Your task to perform on an android device: Search for seafood restaurants on Google Maps Image 0: 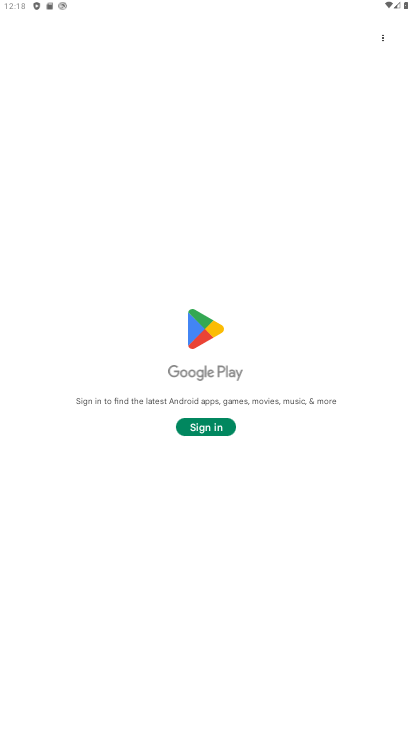
Step 0: press back button
Your task to perform on an android device: Search for seafood restaurants on Google Maps Image 1: 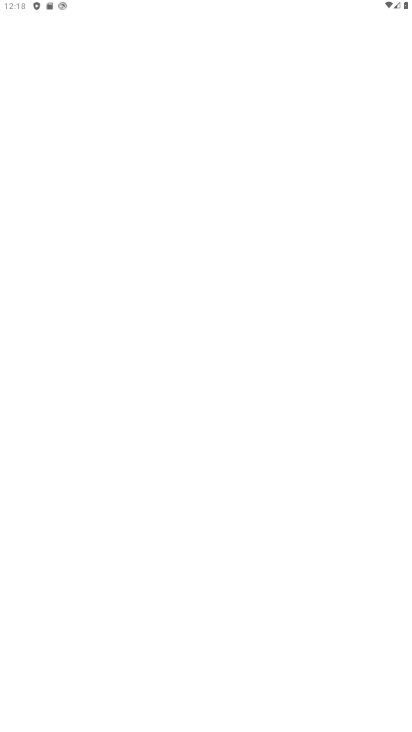
Step 1: press back button
Your task to perform on an android device: Search for seafood restaurants on Google Maps Image 2: 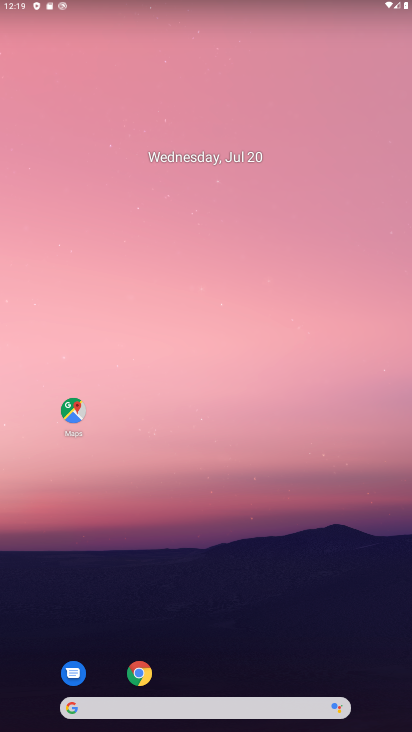
Step 2: drag from (235, 672) to (203, 192)
Your task to perform on an android device: Search for seafood restaurants on Google Maps Image 3: 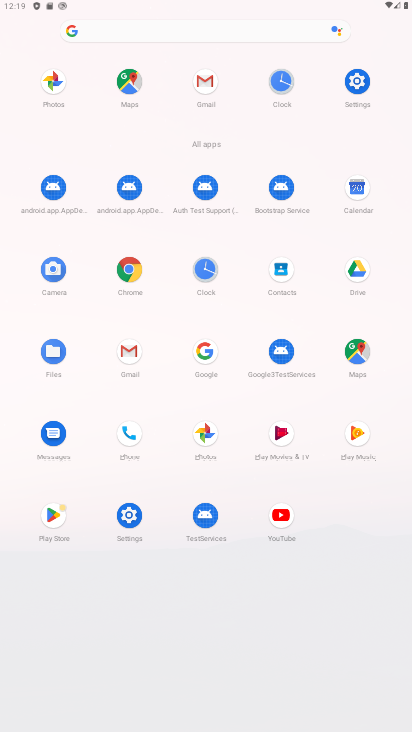
Step 3: drag from (245, 572) to (245, 156)
Your task to perform on an android device: Search for seafood restaurants on Google Maps Image 4: 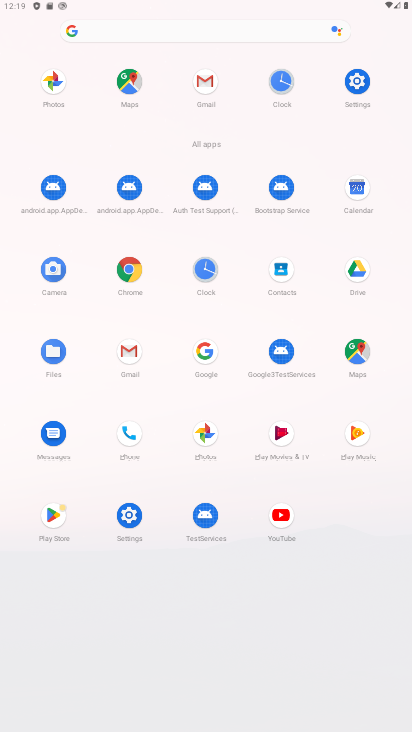
Step 4: click (360, 352)
Your task to perform on an android device: Search for seafood restaurants on Google Maps Image 5: 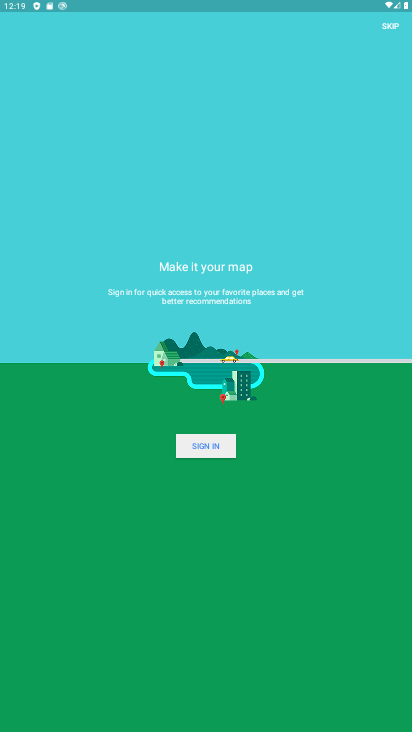
Step 5: click (397, 17)
Your task to perform on an android device: Search for seafood restaurants on Google Maps Image 6: 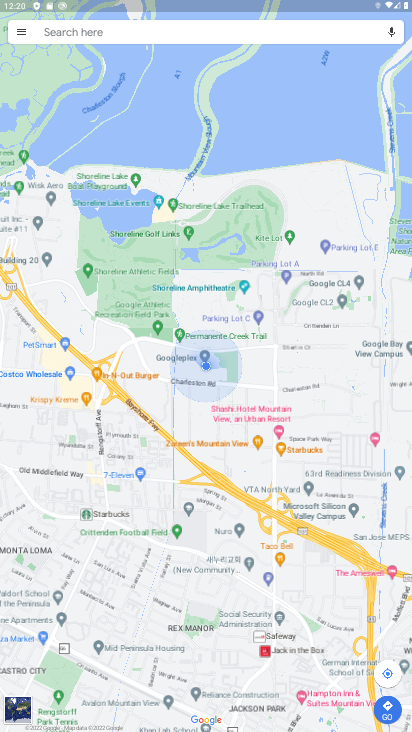
Step 6: click (53, 32)
Your task to perform on an android device: Search for seafood restaurants on Google Maps Image 7: 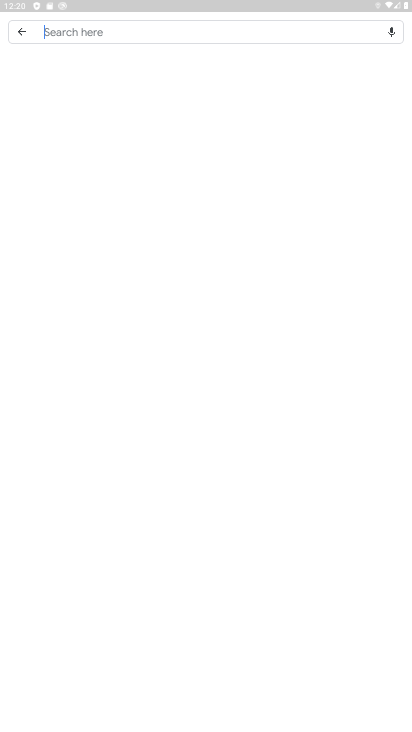
Step 7: click (57, 34)
Your task to perform on an android device: Search for seafood restaurants on Google Maps Image 8: 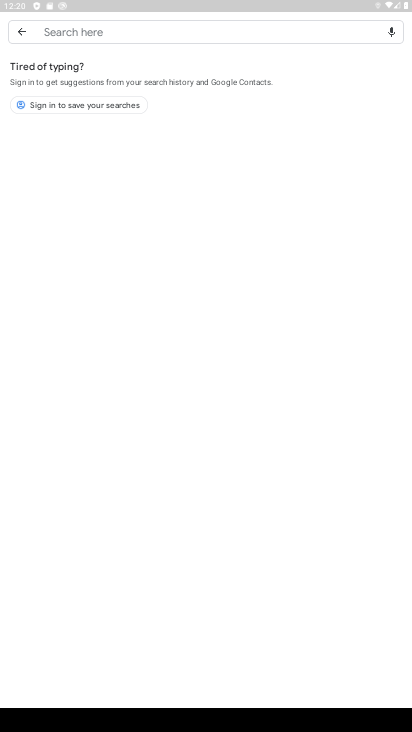
Step 8: click (57, 35)
Your task to perform on an android device: Search for seafood restaurants on Google Maps Image 9: 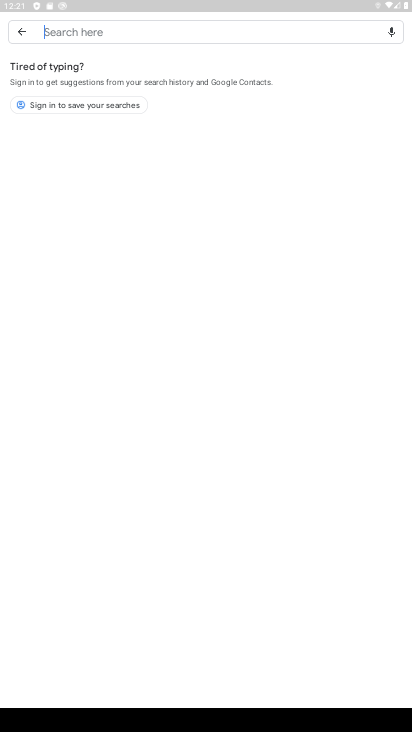
Step 9: type "seafood restaurants"
Your task to perform on an android device: Search for seafood restaurants on Google Maps Image 10: 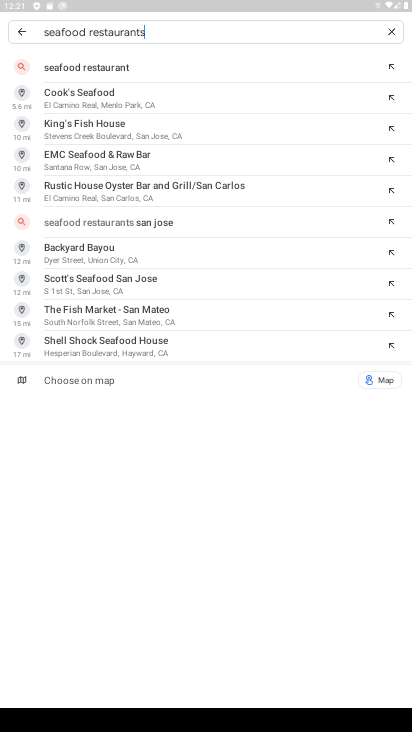
Step 10: click (82, 61)
Your task to perform on an android device: Search for seafood restaurants on Google Maps Image 11: 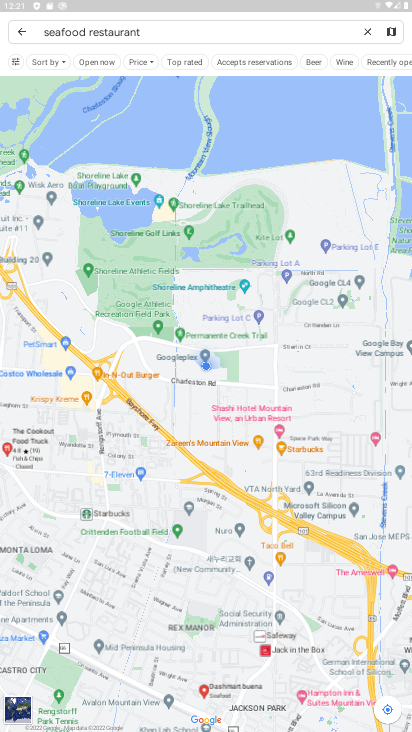
Step 11: task complete